Your task to perform on an android device: toggle notification dots Image 0: 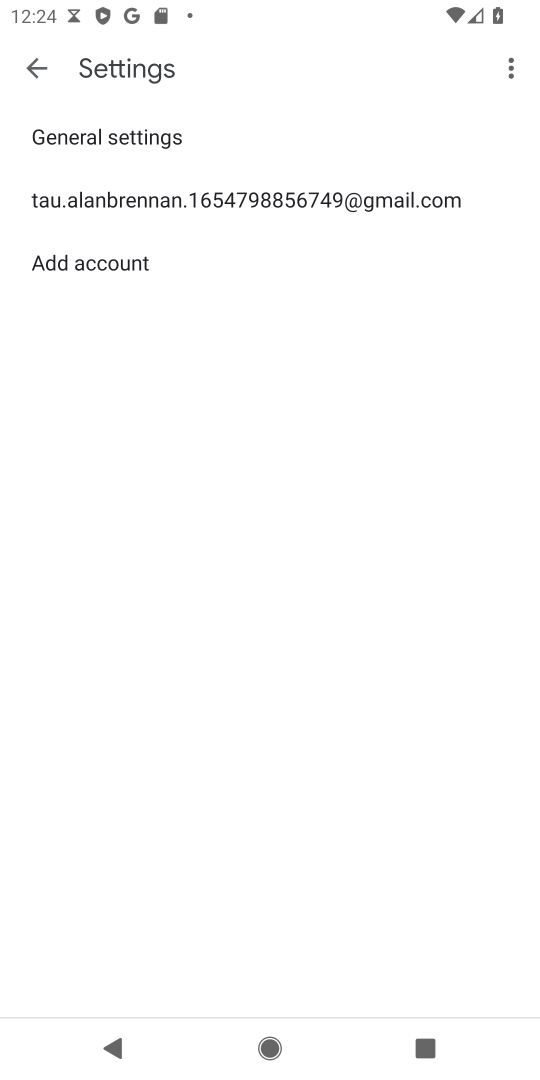
Step 0: press home button
Your task to perform on an android device: toggle notification dots Image 1: 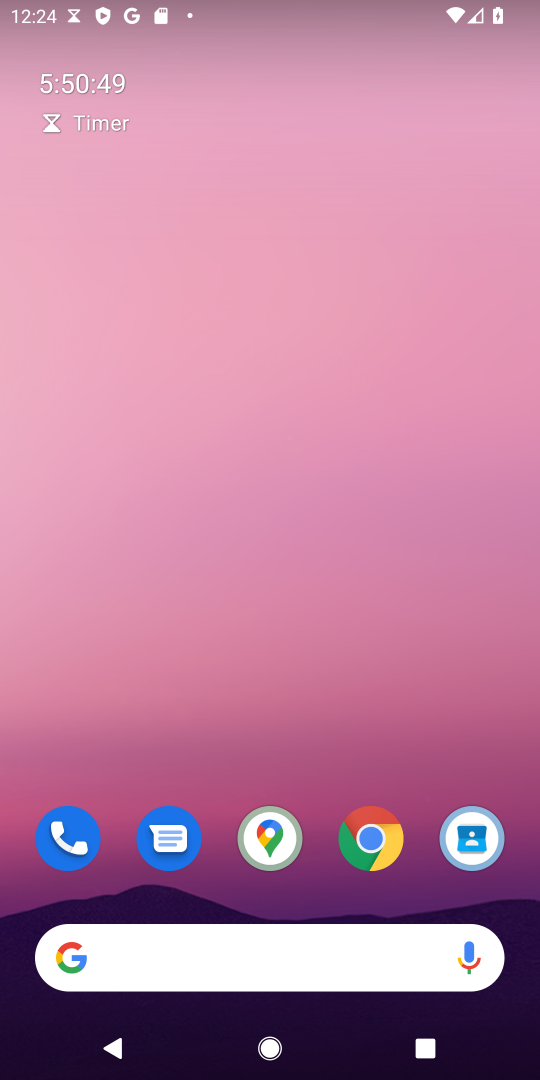
Step 1: drag from (300, 490) to (255, 260)
Your task to perform on an android device: toggle notification dots Image 2: 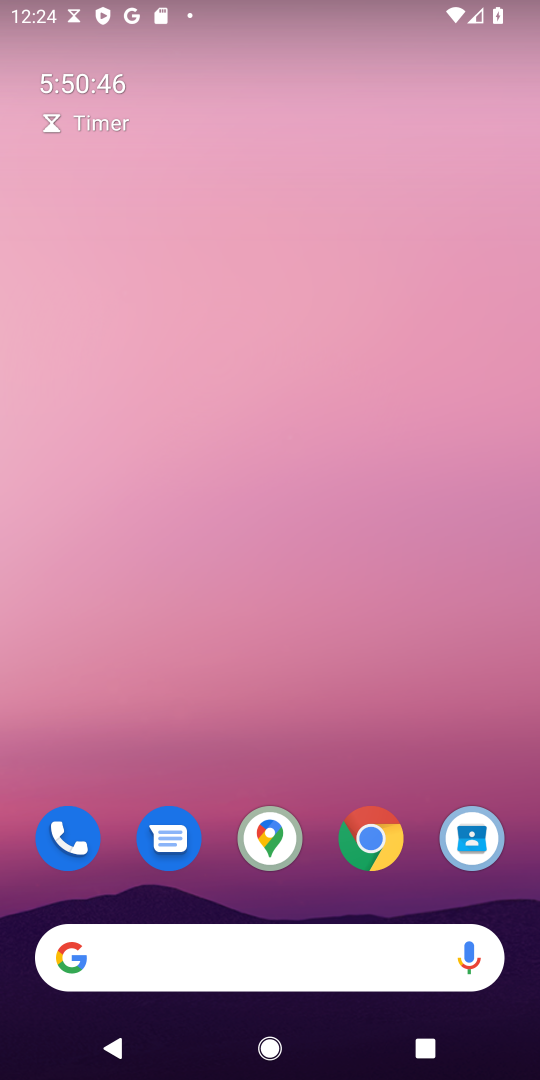
Step 2: drag from (280, 667) to (313, 70)
Your task to perform on an android device: toggle notification dots Image 3: 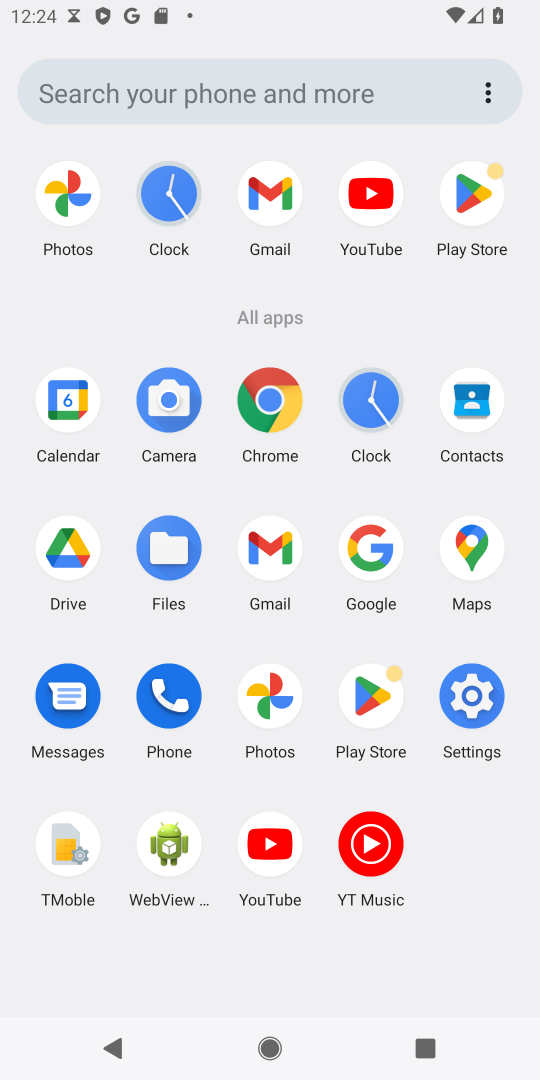
Step 3: click (472, 676)
Your task to perform on an android device: toggle notification dots Image 4: 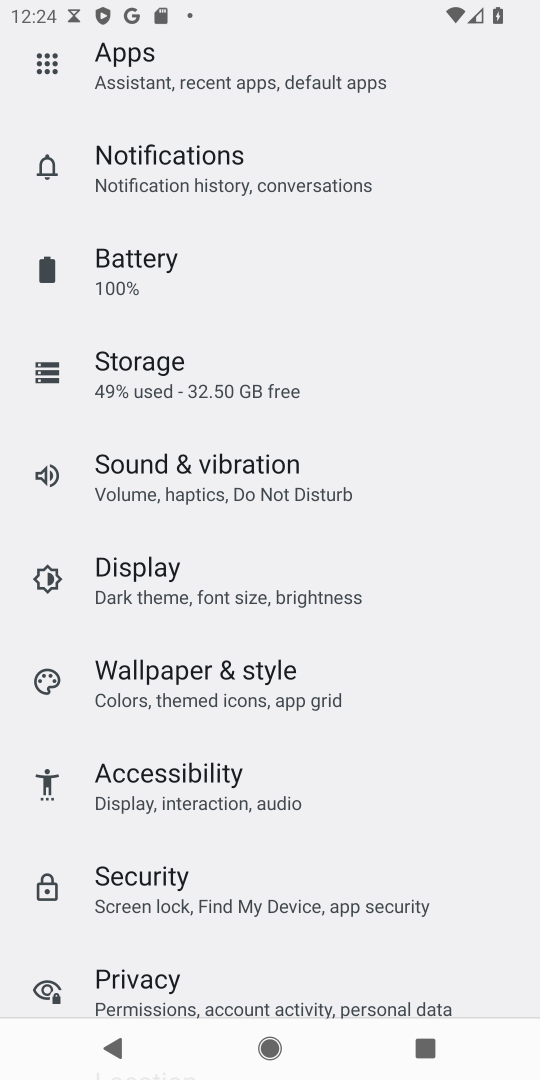
Step 4: click (241, 176)
Your task to perform on an android device: toggle notification dots Image 5: 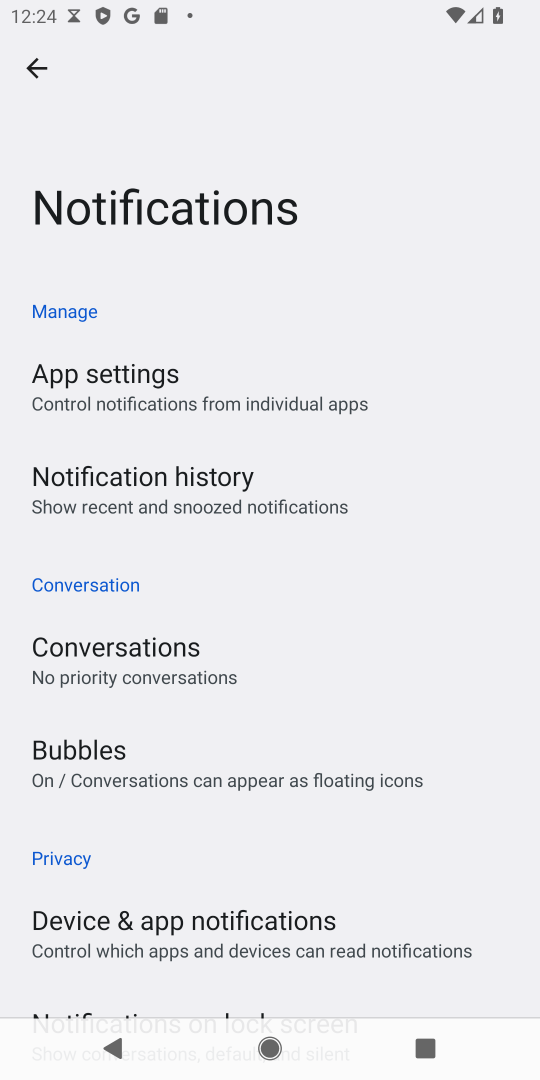
Step 5: drag from (203, 878) to (144, 193)
Your task to perform on an android device: toggle notification dots Image 6: 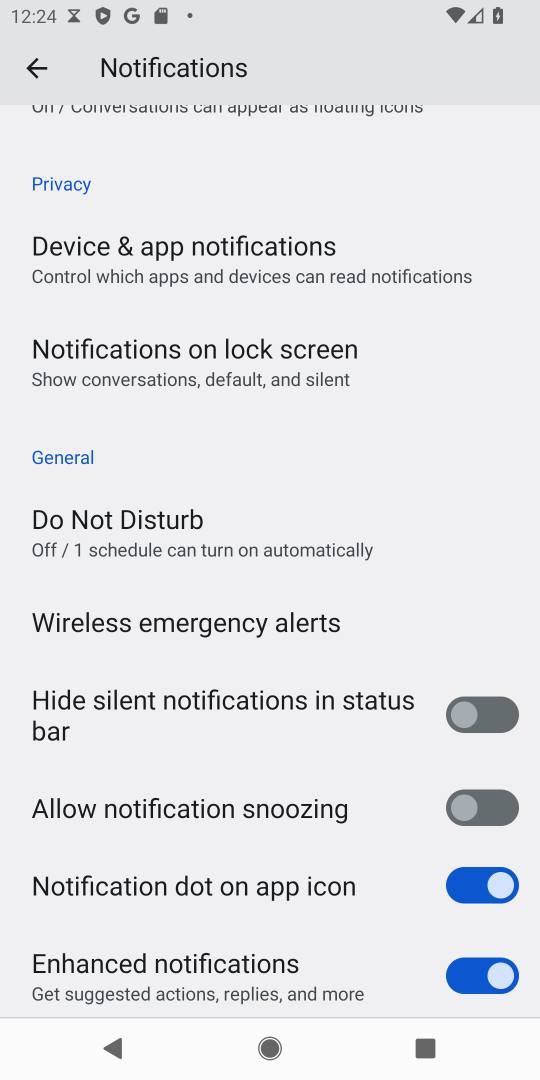
Step 6: drag from (282, 871) to (214, 391)
Your task to perform on an android device: toggle notification dots Image 7: 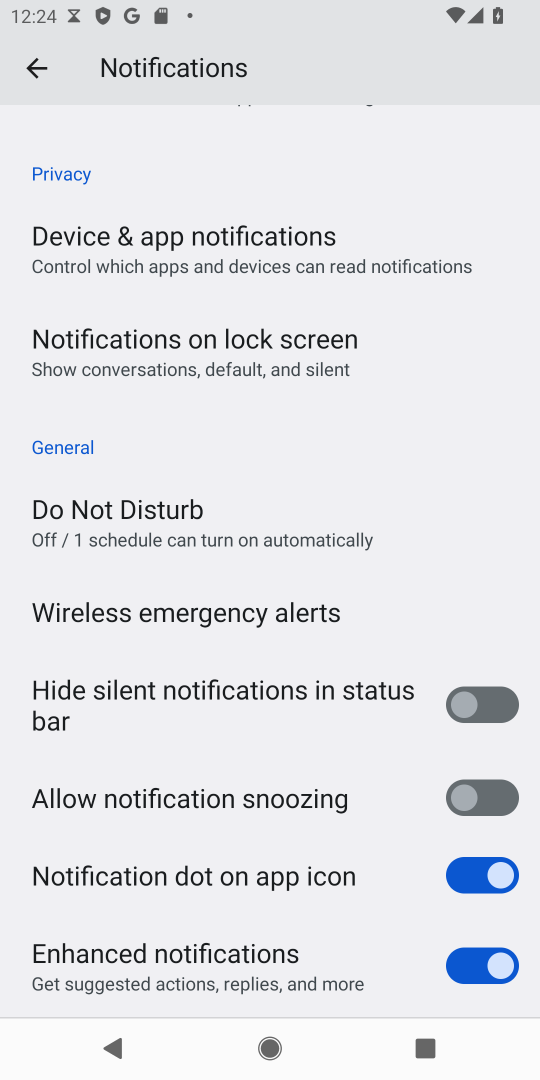
Step 7: click (464, 888)
Your task to perform on an android device: toggle notification dots Image 8: 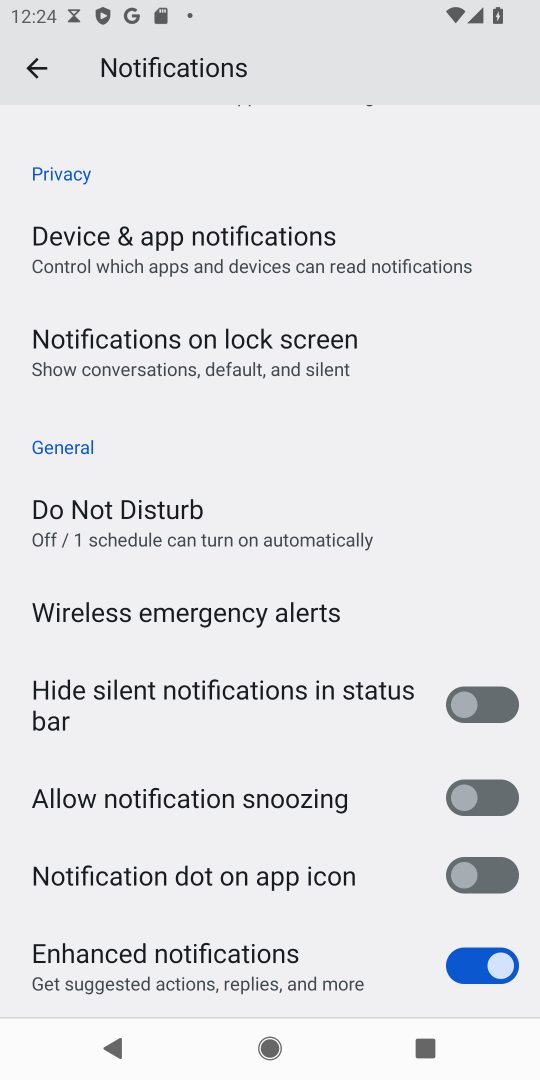
Step 8: task complete